Your task to perform on an android device: delete a single message in the gmail app Image 0: 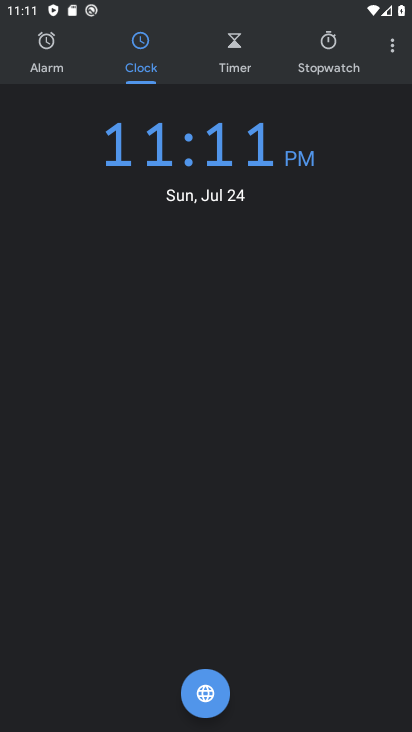
Step 0: press home button
Your task to perform on an android device: delete a single message in the gmail app Image 1: 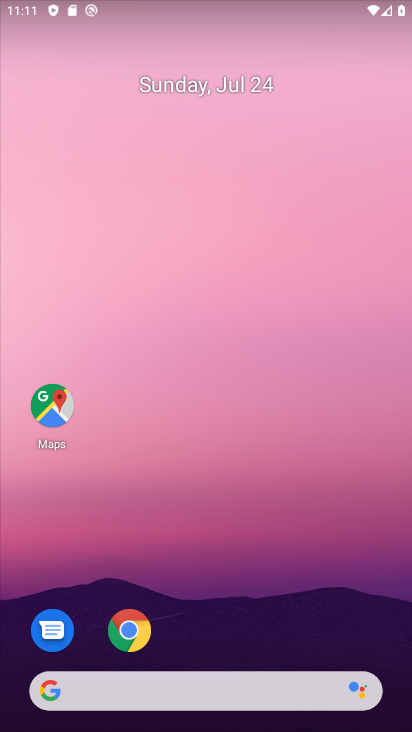
Step 1: drag from (198, 625) to (199, 234)
Your task to perform on an android device: delete a single message in the gmail app Image 2: 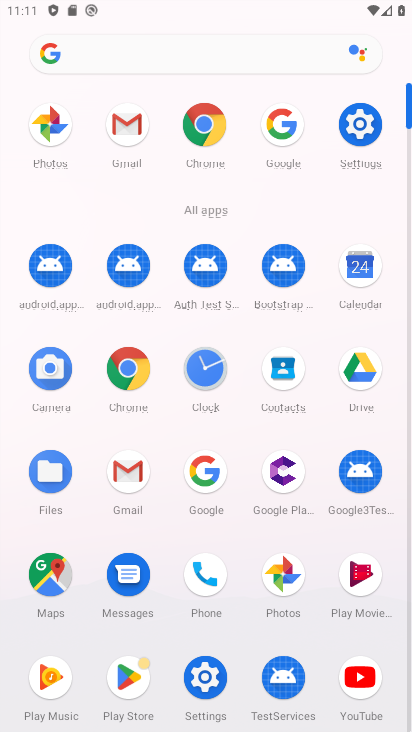
Step 2: click (120, 479)
Your task to perform on an android device: delete a single message in the gmail app Image 3: 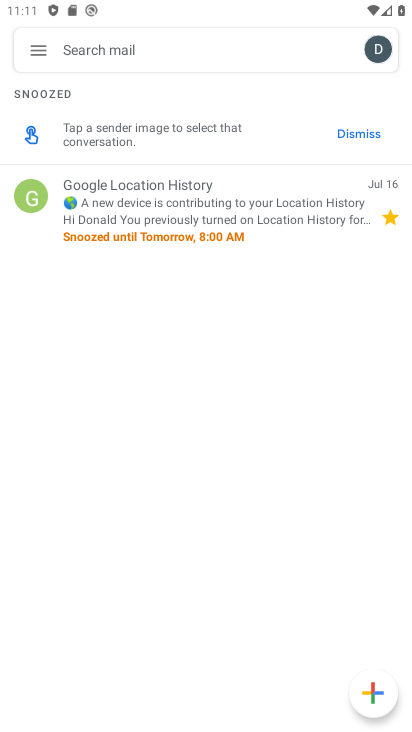
Step 3: click (160, 193)
Your task to perform on an android device: delete a single message in the gmail app Image 4: 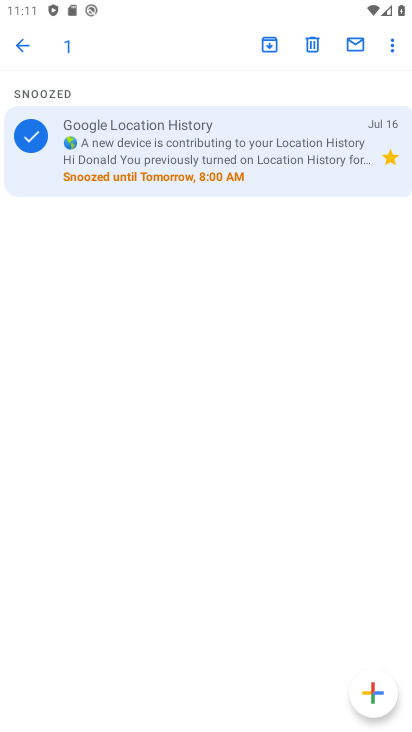
Step 4: click (307, 42)
Your task to perform on an android device: delete a single message in the gmail app Image 5: 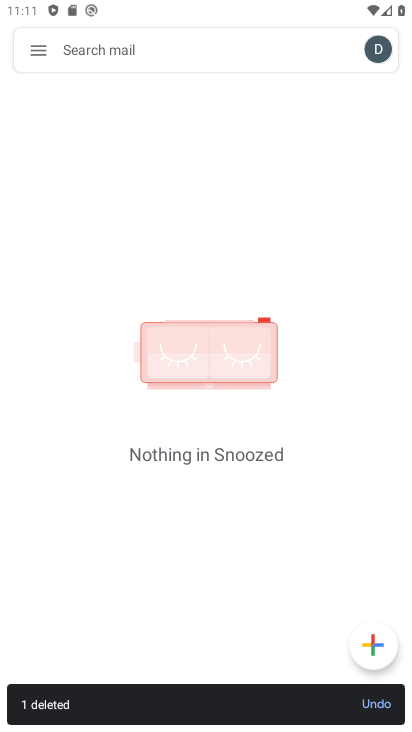
Step 5: task complete